Your task to perform on an android device: Go to Google Image 0: 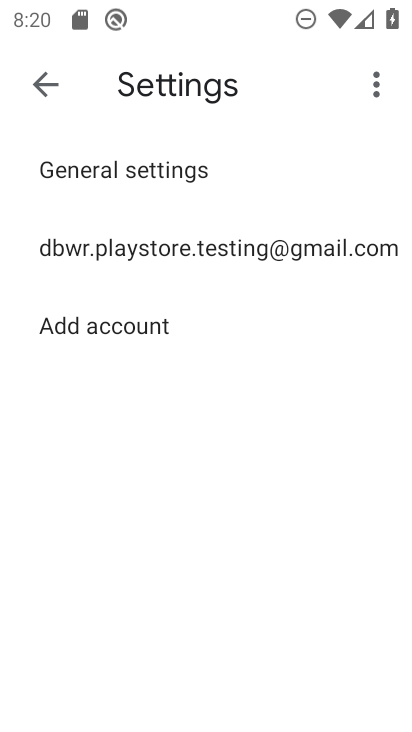
Step 0: press home button
Your task to perform on an android device: Go to Google Image 1: 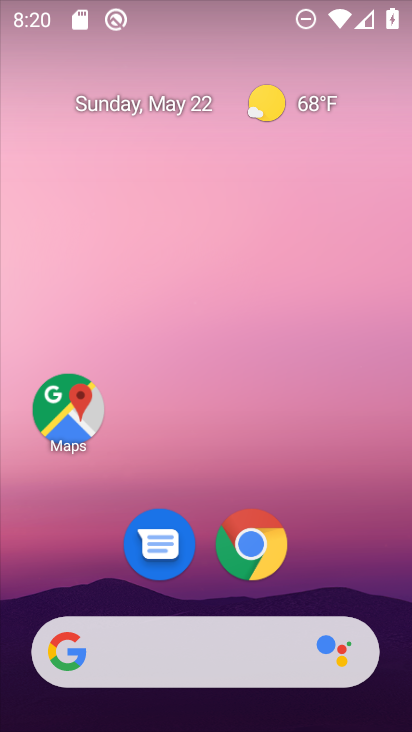
Step 1: drag from (388, 699) to (357, 370)
Your task to perform on an android device: Go to Google Image 2: 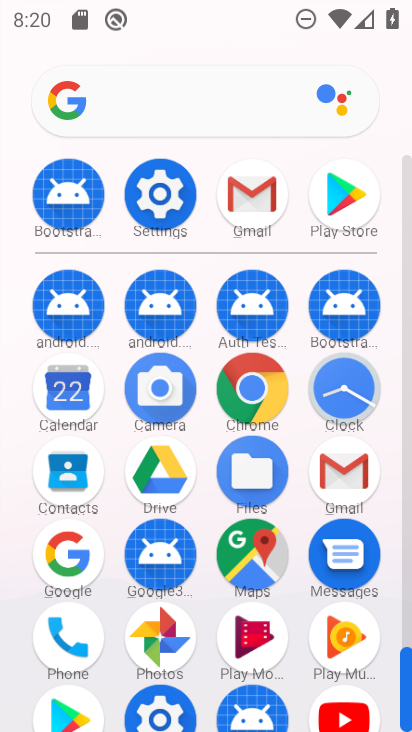
Step 2: click (59, 560)
Your task to perform on an android device: Go to Google Image 3: 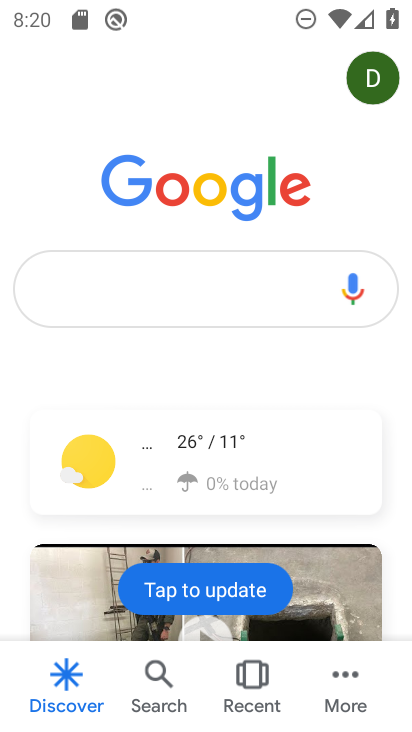
Step 3: task complete